Your task to perform on an android device: check battery use Image 0: 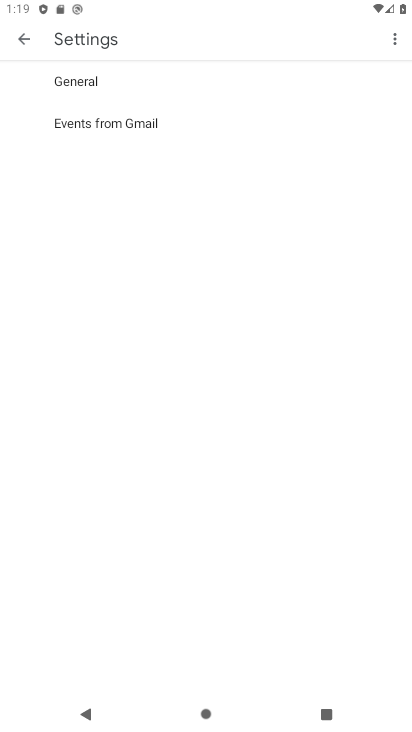
Step 0: press home button
Your task to perform on an android device: check battery use Image 1: 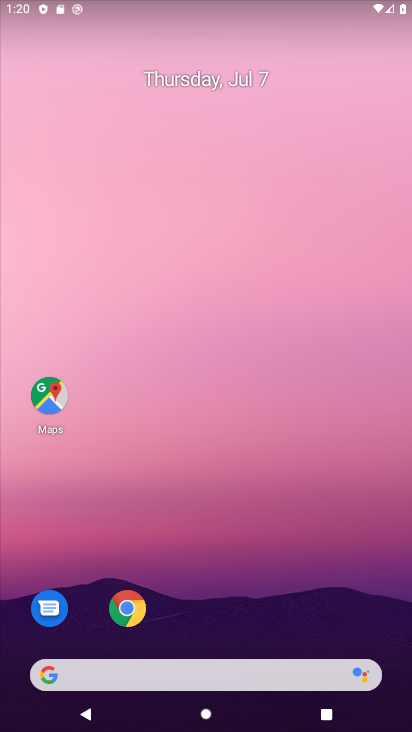
Step 1: drag from (303, 611) to (335, 62)
Your task to perform on an android device: check battery use Image 2: 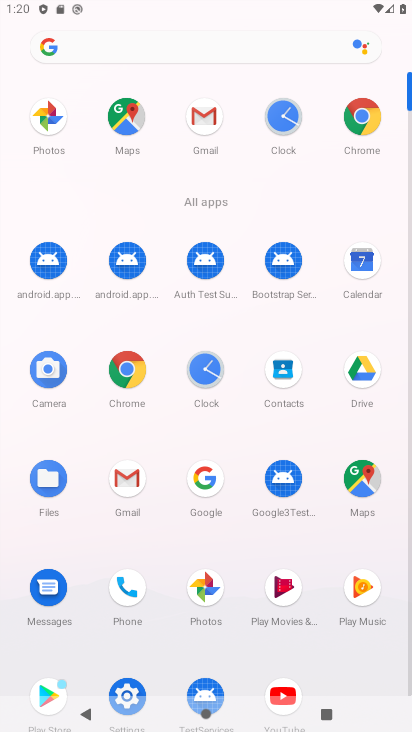
Step 2: drag from (148, 606) to (189, 244)
Your task to perform on an android device: check battery use Image 3: 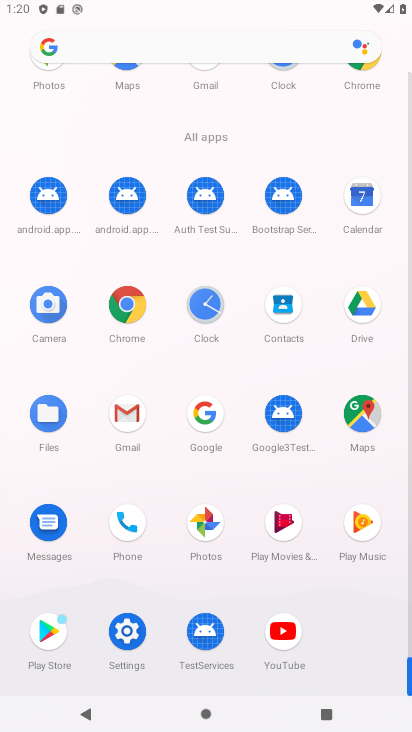
Step 3: click (125, 623)
Your task to perform on an android device: check battery use Image 4: 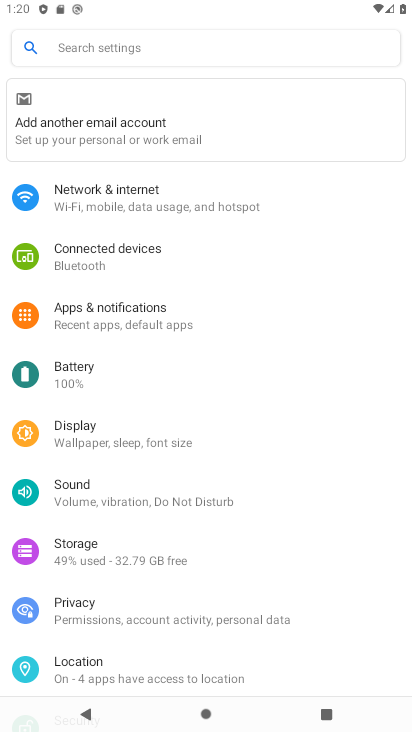
Step 4: click (94, 378)
Your task to perform on an android device: check battery use Image 5: 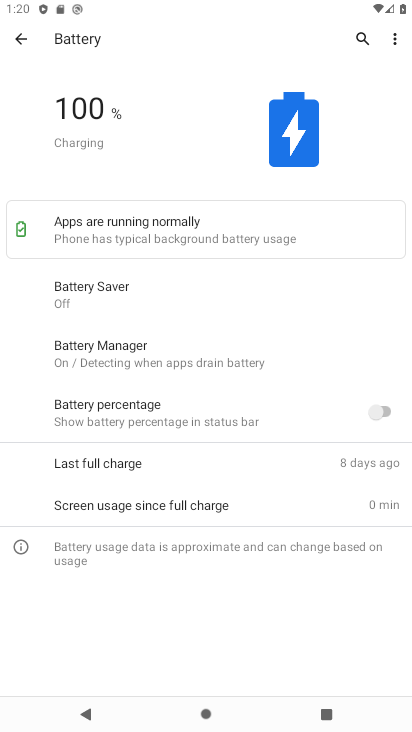
Step 5: task complete